Your task to perform on an android device: Search for sushi restaurants on Maps Image 0: 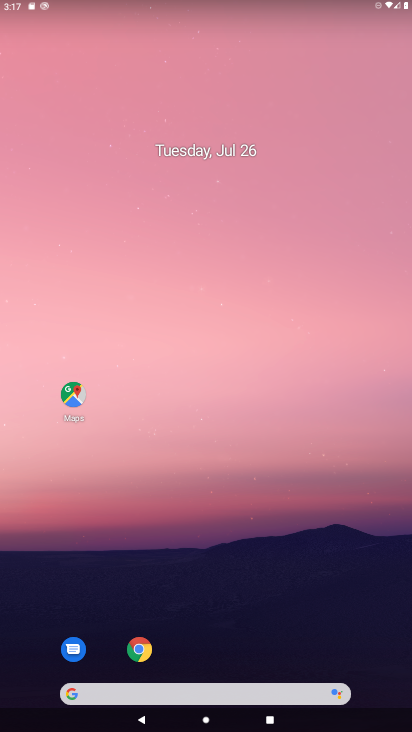
Step 0: drag from (197, 677) to (171, 200)
Your task to perform on an android device: Search for sushi restaurants on Maps Image 1: 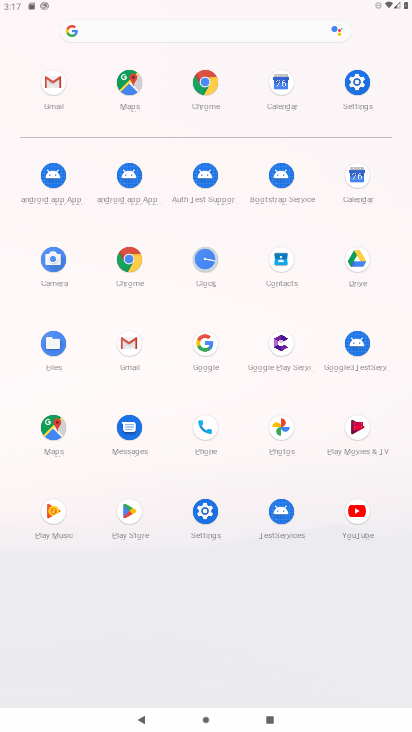
Step 1: click (56, 435)
Your task to perform on an android device: Search for sushi restaurants on Maps Image 2: 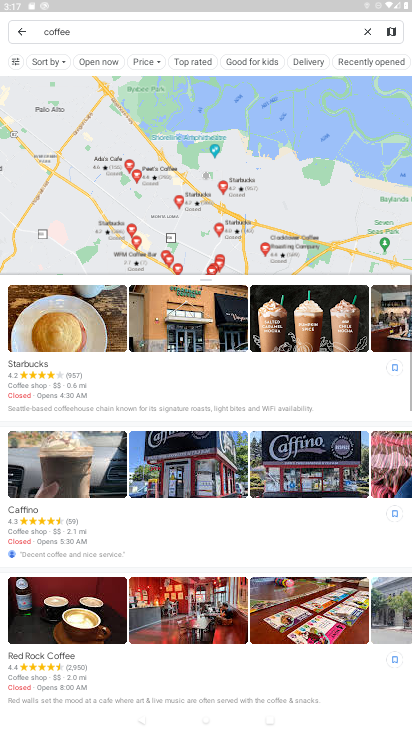
Step 2: click (371, 31)
Your task to perform on an android device: Search for sushi restaurants on Maps Image 3: 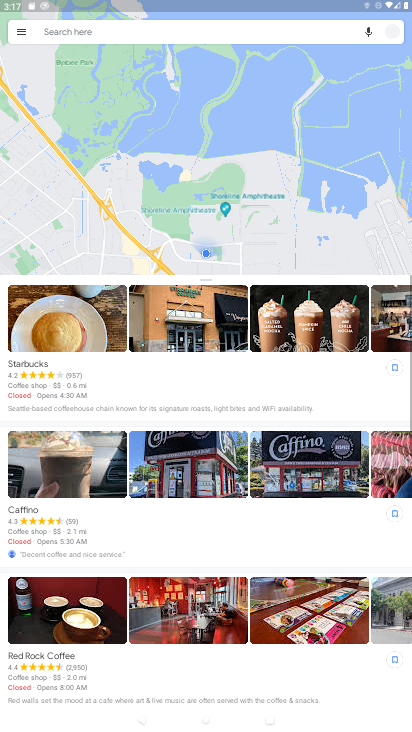
Step 3: click (241, 36)
Your task to perform on an android device: Search for sushi restaurants on Maps Image 4: 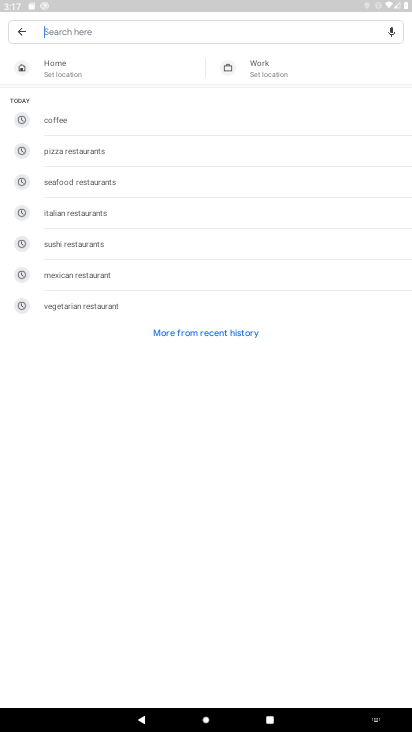
Step 4: click (85, 248)
Your task to perform on an android device: Search for sushi restaurants on Maps Image 5: 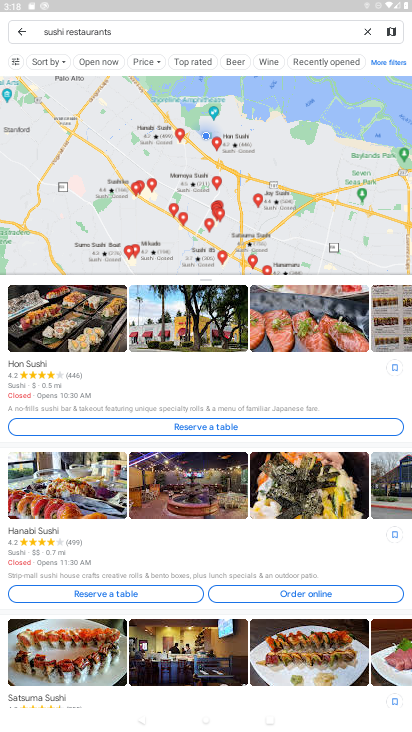
Step 5: task complete